Your task to perform on an android device: Do I have any events tomorrow? Image 0: 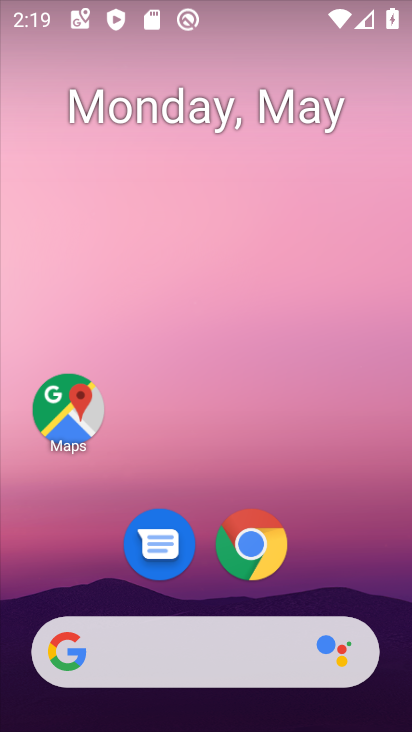
Step 0: drag from (200, 587) to (201, 228)
Your task to perform on an android device: Do I have any events tomorrow? Image 1: 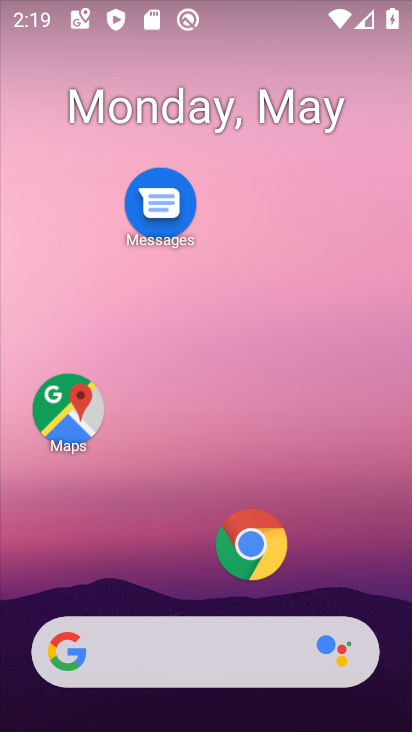
Step 1: drag from (189, 578) to (204, 202)
Your task to perform on an android device: Do I have any events tomorrow? Image 2: 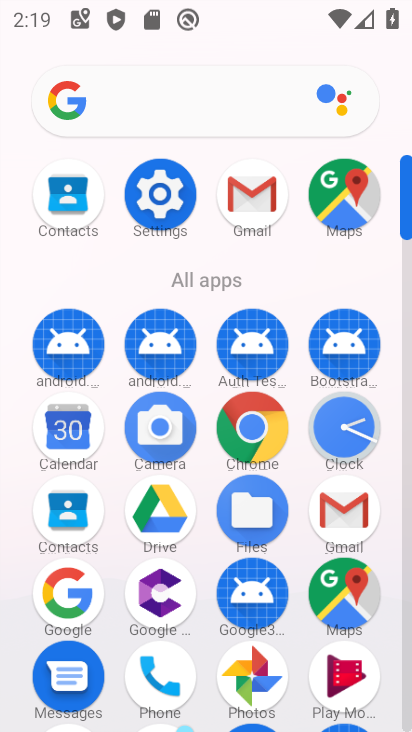
Step 2: click (63, 408)
Your task to perform on an android device: Do I have any events tomorrow? Image 3: 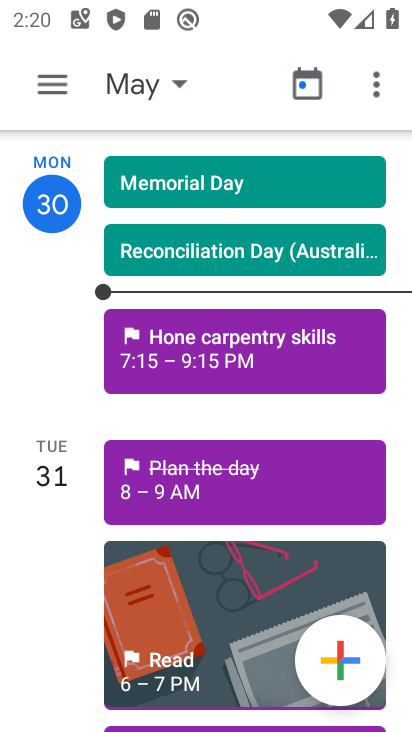
Step 3: click (169, 76)
Your task to perform on an android device: Do I have any events tomorrow? Image 4: 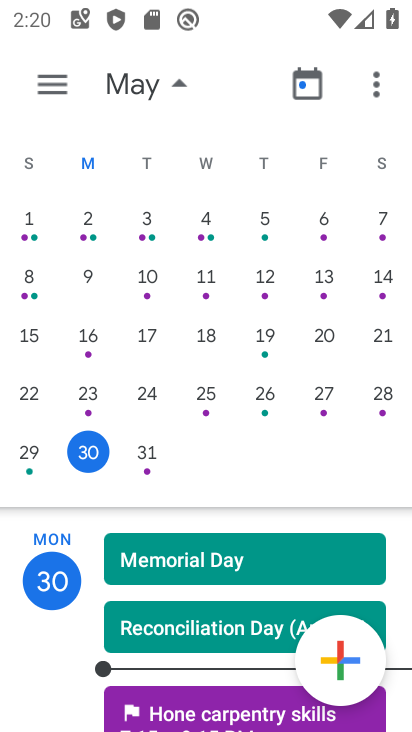
Step 4: click (141, 453)
Your task to perform on an android device: Do I have any events tomorrow? Image 5: 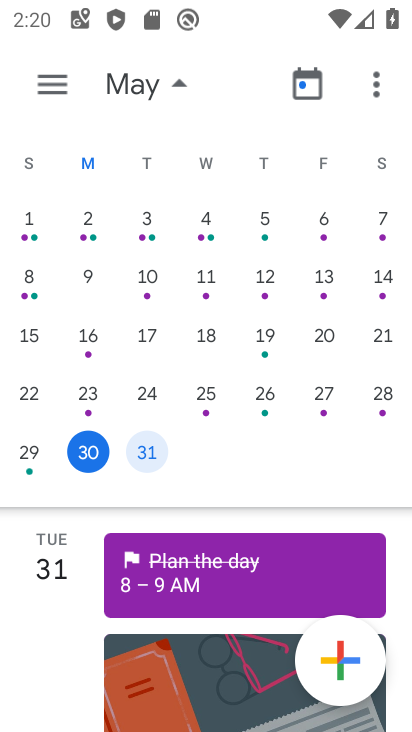
Step 5: task complete